Your task to perform on an android device: turn off picture-in-picture Image 0: 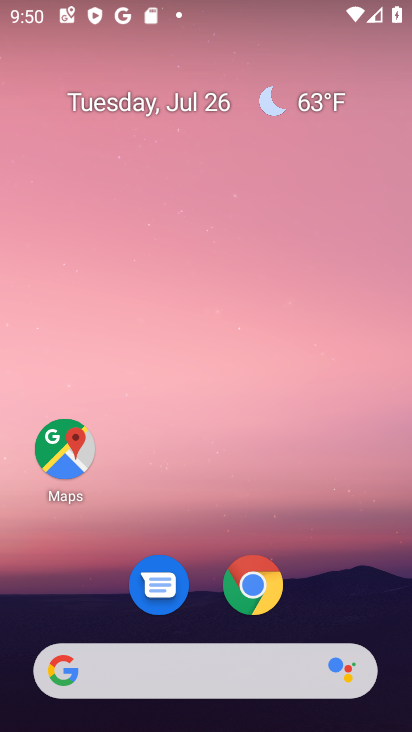
Step 0: click (262, 590)
Your task to perform on an android device: turn off picture-in-picture Image 1: 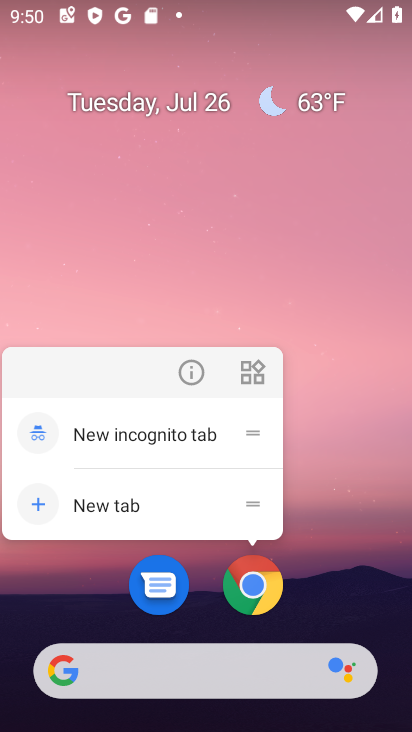
Step 1: click (180, 356)
Your task to perform on an android device: turn off picture-in-picture Image 2: 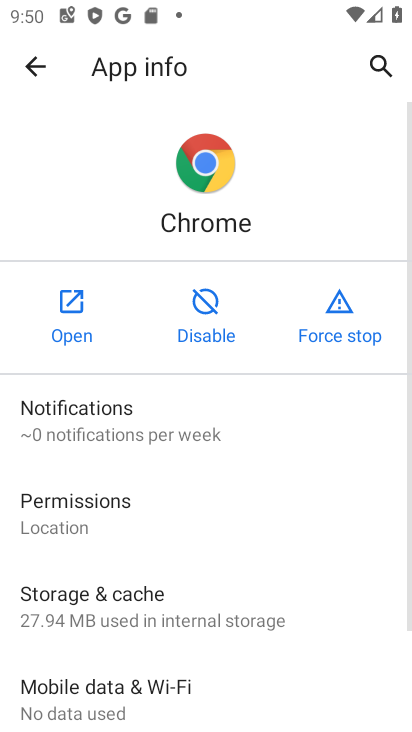
Step 2: drag from (234, 544) to (230, 120)
Your task to perform on an android device: turn off picture-in-picture Image 3: 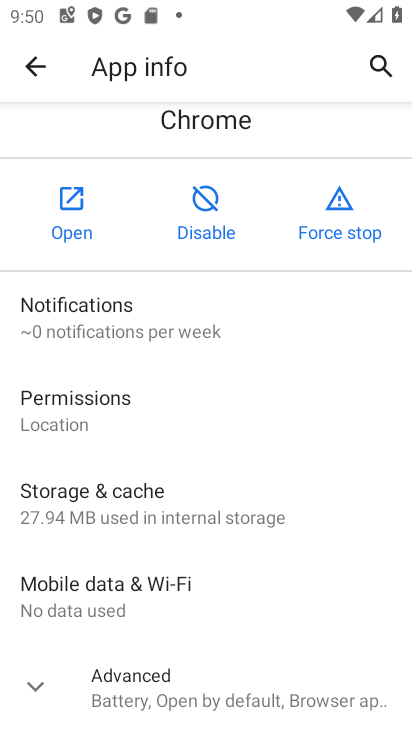
Step 3: click (41, 676)
Your task to perform on an android device: turn off picture-in-picture Image 4: 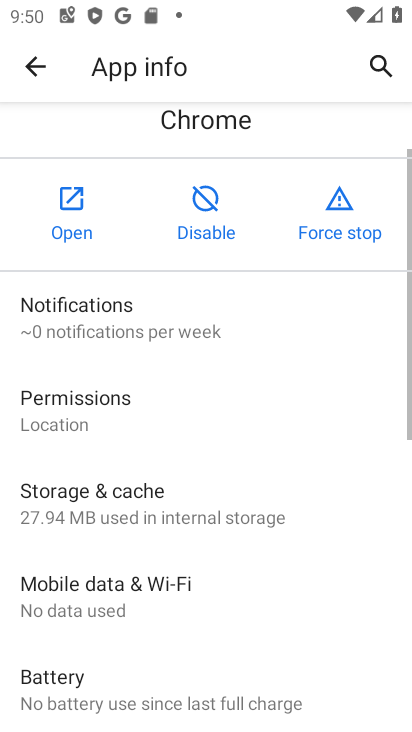
Step 4: drag from (220, 514) to (239, 233)
Your task to perform on an android device: turn off picture-in-picture Image 5: 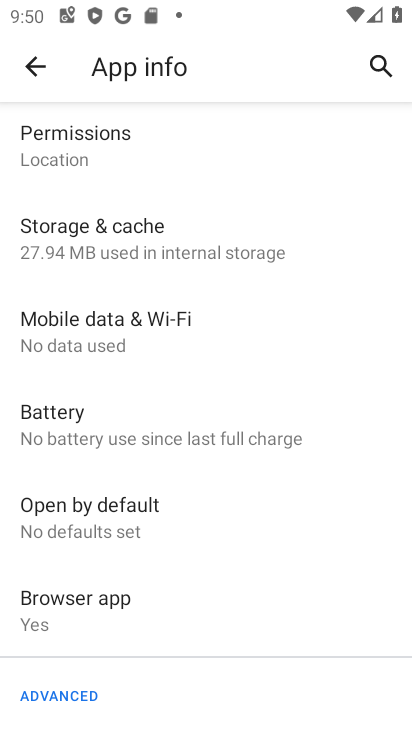
Step 5: drag from (247, 232) to (251, 458)
Your task to perform on an android device: turn off picture-in-picture Image 6: 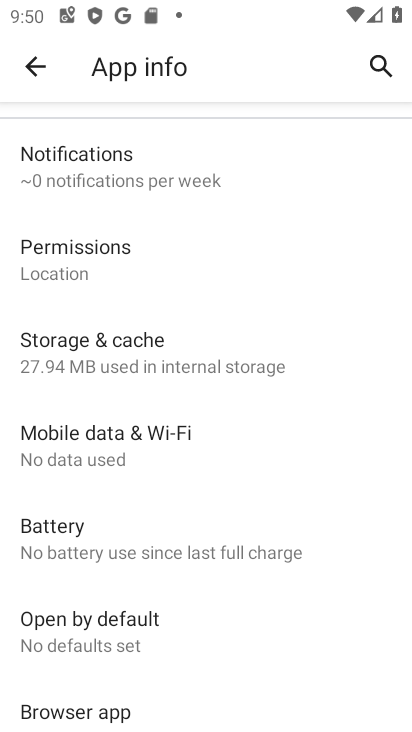
Step 6: drag from (240, 269) to (268, 594)
Your task to perform on an android device: turn off picture-in-picture Image 7: 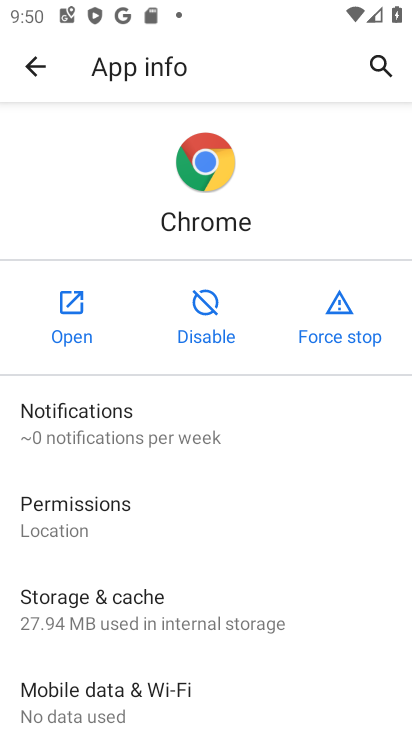
Step 7: drag from (265, 568) to (245, 82)
Your task to perform on an android device: turn off picture-in-picture Image 8: 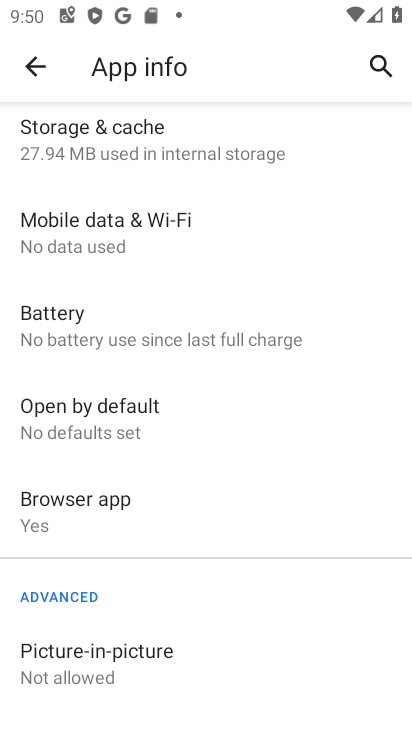
Step 8: click (122, 646)
Your task to perform on an android device: turn off picture-in-picture Image 9: 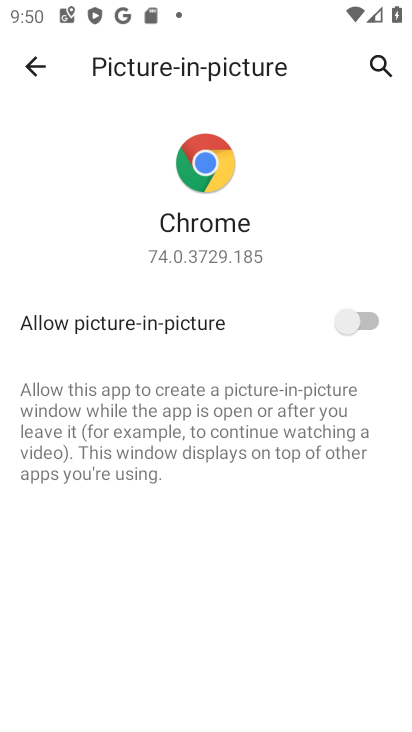
Step 9: task complete